Your task to perform on an android device: turn on the 12-hour format for clock Image 0: 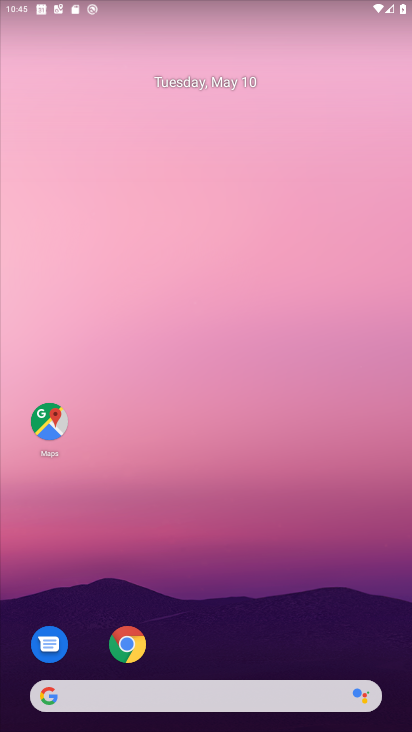
Step 0: drag from (248, 549) to (297, 52)
Your task to perform on an android device: turn on the 12-hour format for clock Image 1: 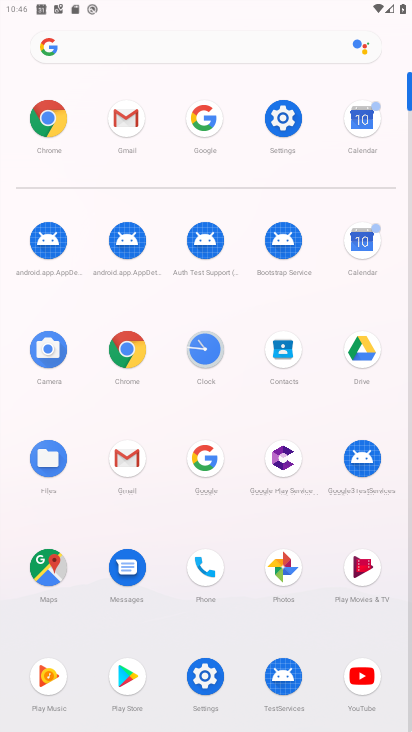
Step 1: click (206, 360)
Your task to perform on an android device: turn on the 12-hour format for clock Image 2: 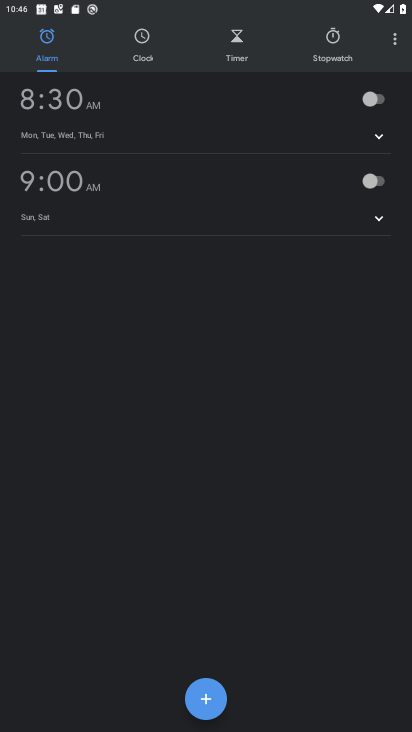
Step 2: click (400, 34)
Your task to perform on an android device: turn on the 12-hour format for clock Image 3: 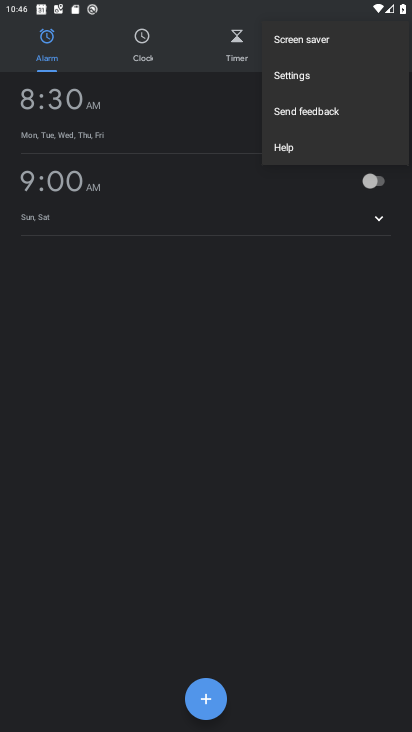
Step 3: click (324, 74)
Your task to perform on an android device: turn on the 12-hour format for clock Image 4: 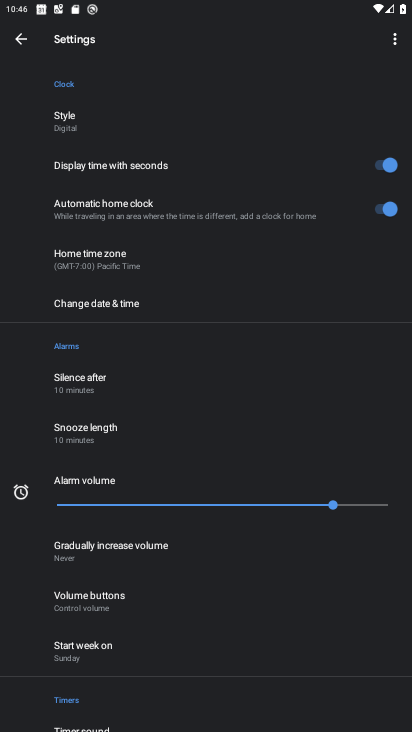
Step 4: click (177, 305)
Your task to perform on an android device: turn on the 12-hour format for clock Image 5: 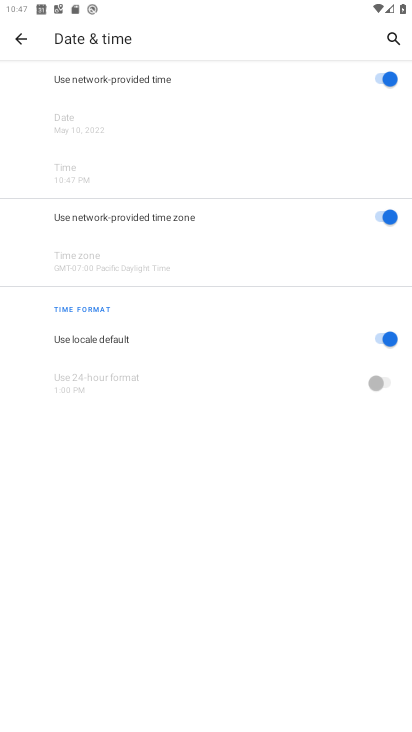
Step 5: click (287, 394)
Your task to perform on an android device: turn on the 12-hour format for clock Image 6: 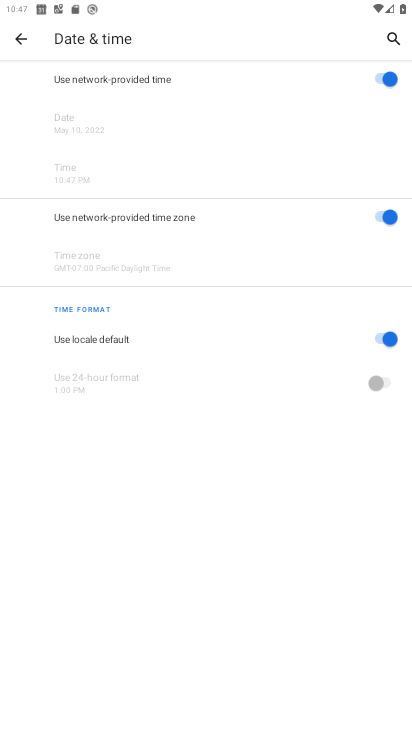
Step 6: task complete